Your task to perform on an android device: toggle improve location accuracy Image 0: 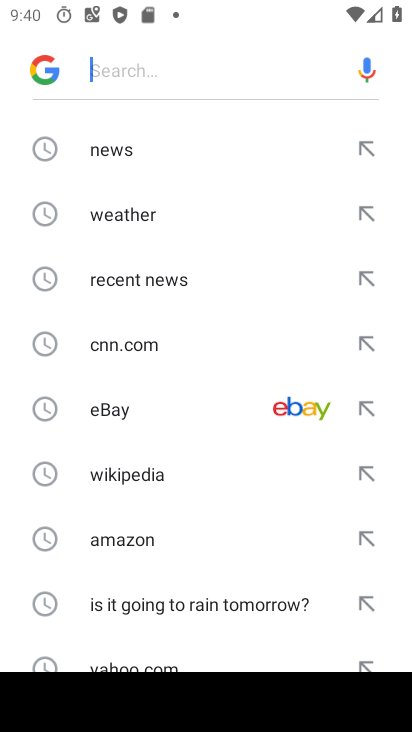
Step 0: task complete